Your task to perform on an android device: turn off sleep mode Image 0: 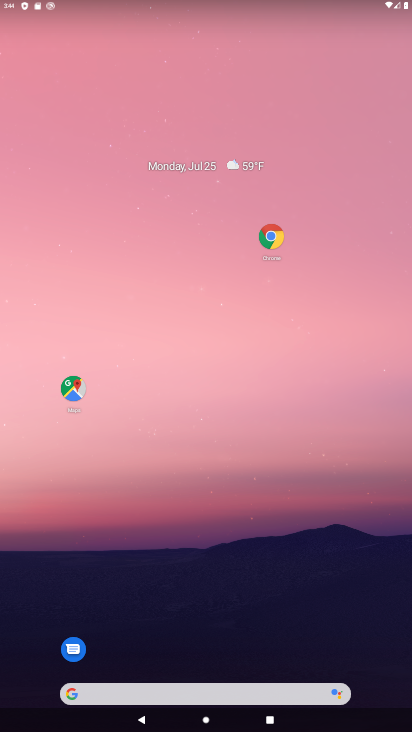
Step 0: press home button
Your task to perform on an android device: turn off sleep mode Image 1: 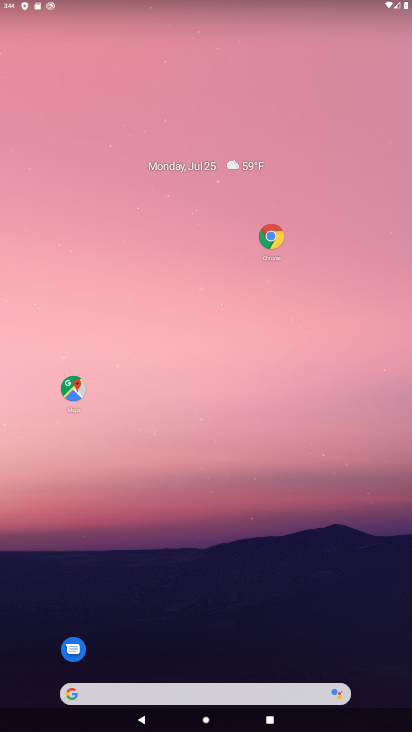
Step 1: drag from (173, 696) to (211, 186)
Your task to perform on an android device: turn off sleep mode Image 2: 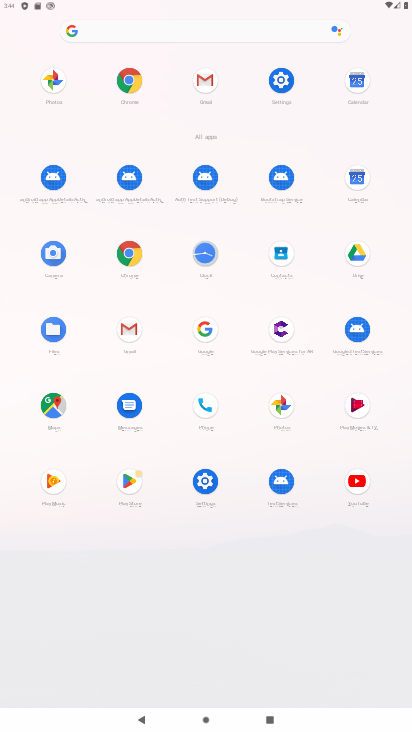
Step 2: click (286, 91)
Your task to perform on an android device: turn off sleep mode Image 3: 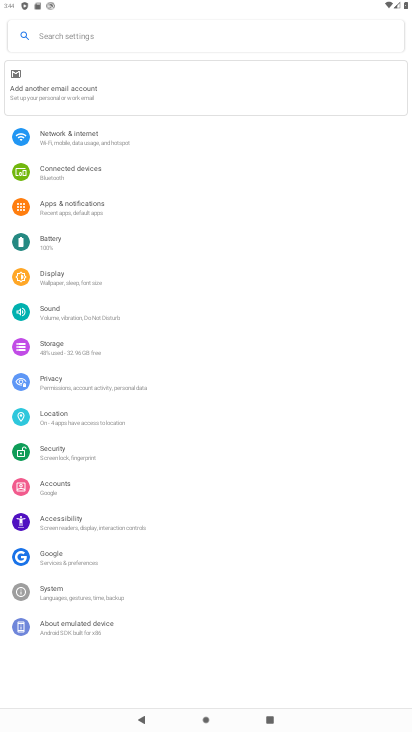
Step 3: click (71, 270)
Your task to perform on an android device: turn off sleep mode Image 4: 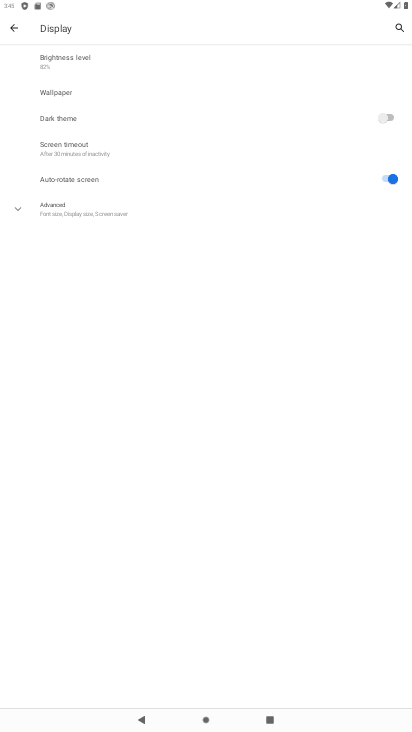
Step 4: click (119, 217)
Your task to perform on an android device: turn off sleep mode Image 5: 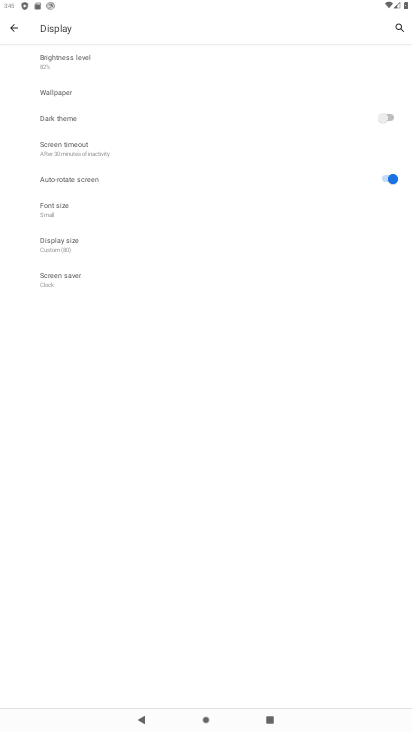
Step 5: task complete